Your task to perform on an android device: Search for Italian restaurants on Maps Image 0: 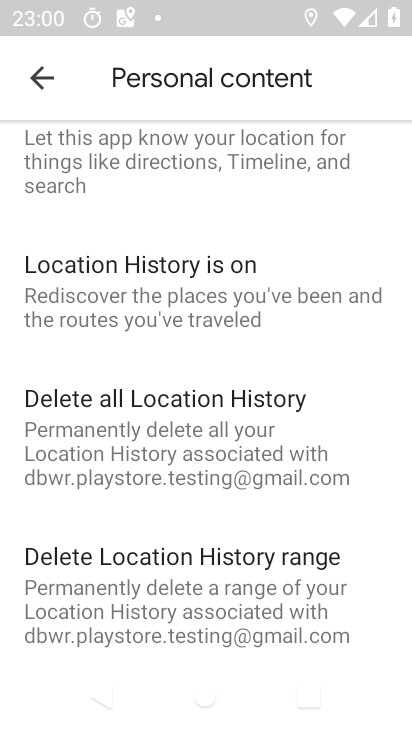
Step 0: click (51, 78)
Your task to perform on an android device: Search for Italian restaurants on Maps Image 1: 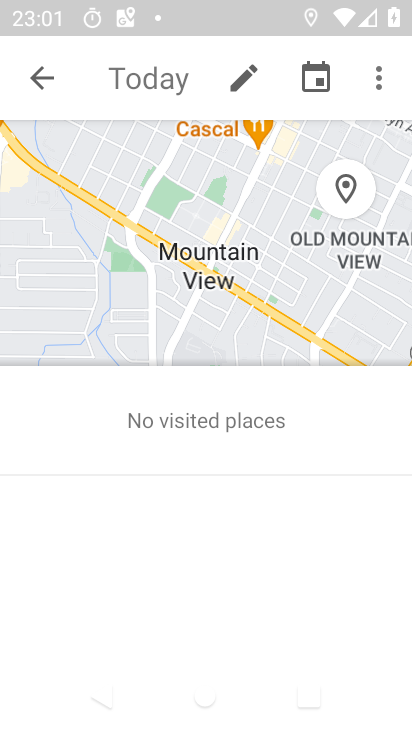
Step 1: click (51, 78)
Your task to perform on an android device: Search for Italian restaurants on Maps Image 2: 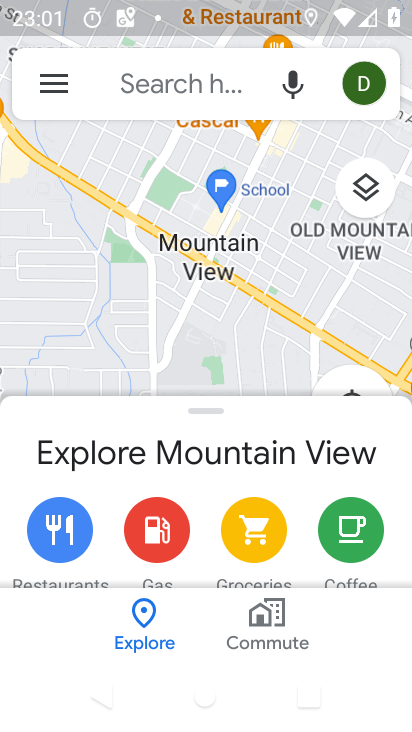
Step 2: click (179, 81)
Your task to perform on an android device: Search for Italian restaurants on Maps Image 3: 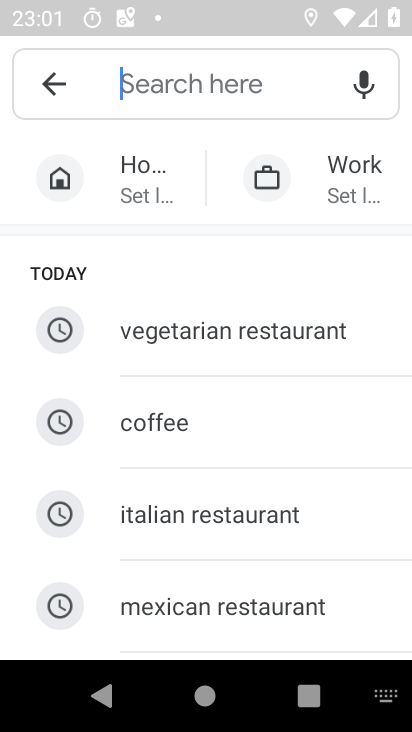
Step 3: click (289, 517)
Your task to perform on an android device: Search for Italian restaurants on Maps Image 4: 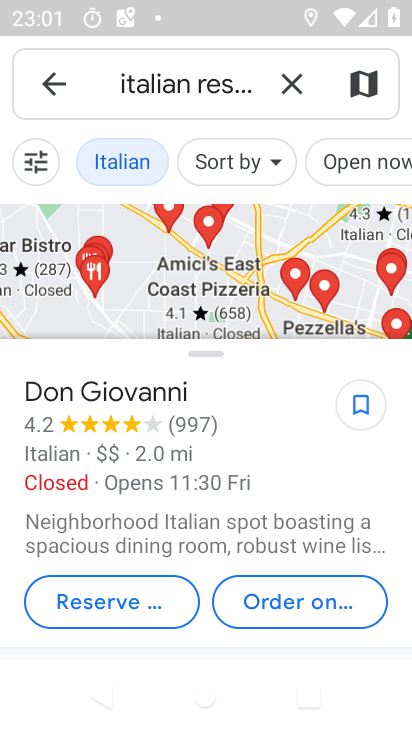
Step 4: task complete